Your task to perform on an android device: allow cookies in the chrome app Image 0: 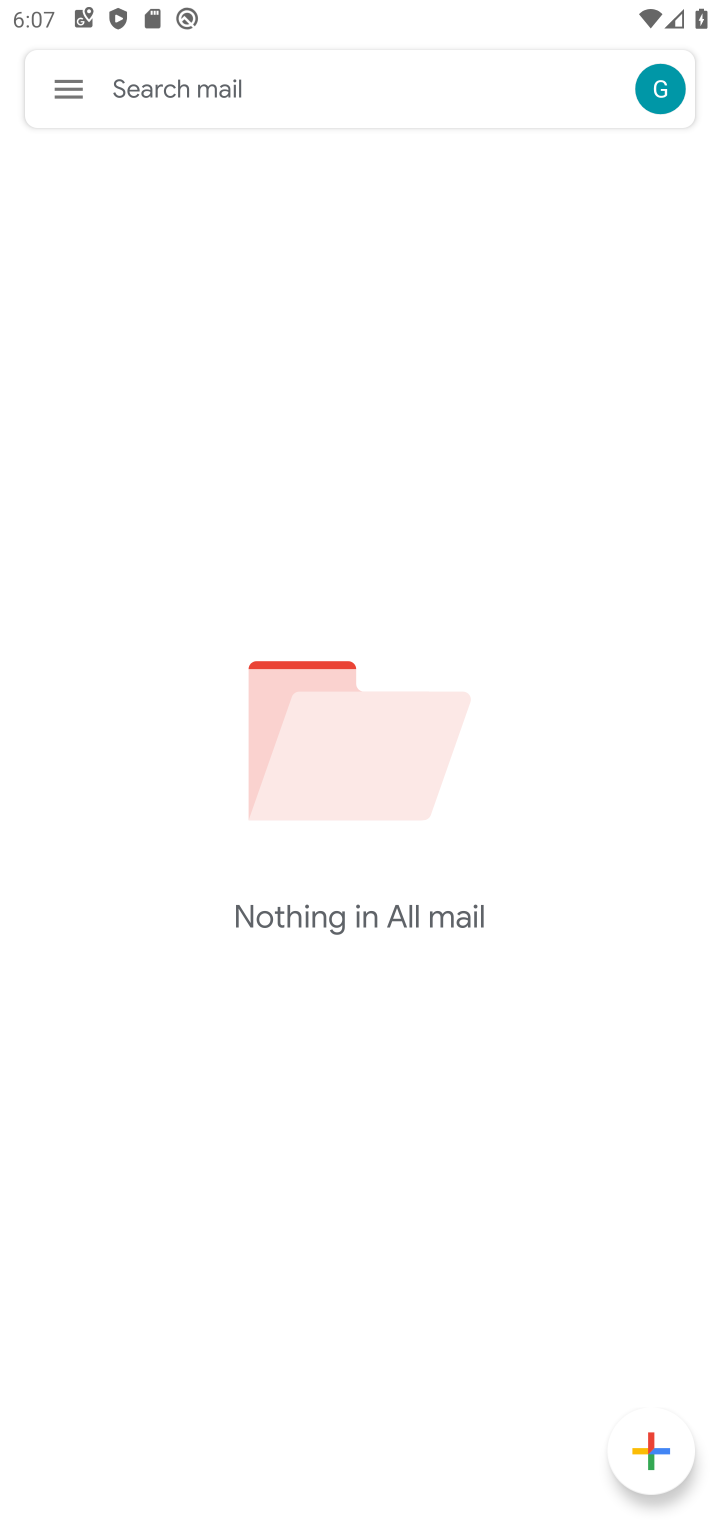
Step 0: press back button
Your task to perform on an android device: allow cookies in the chrome app Image 1: 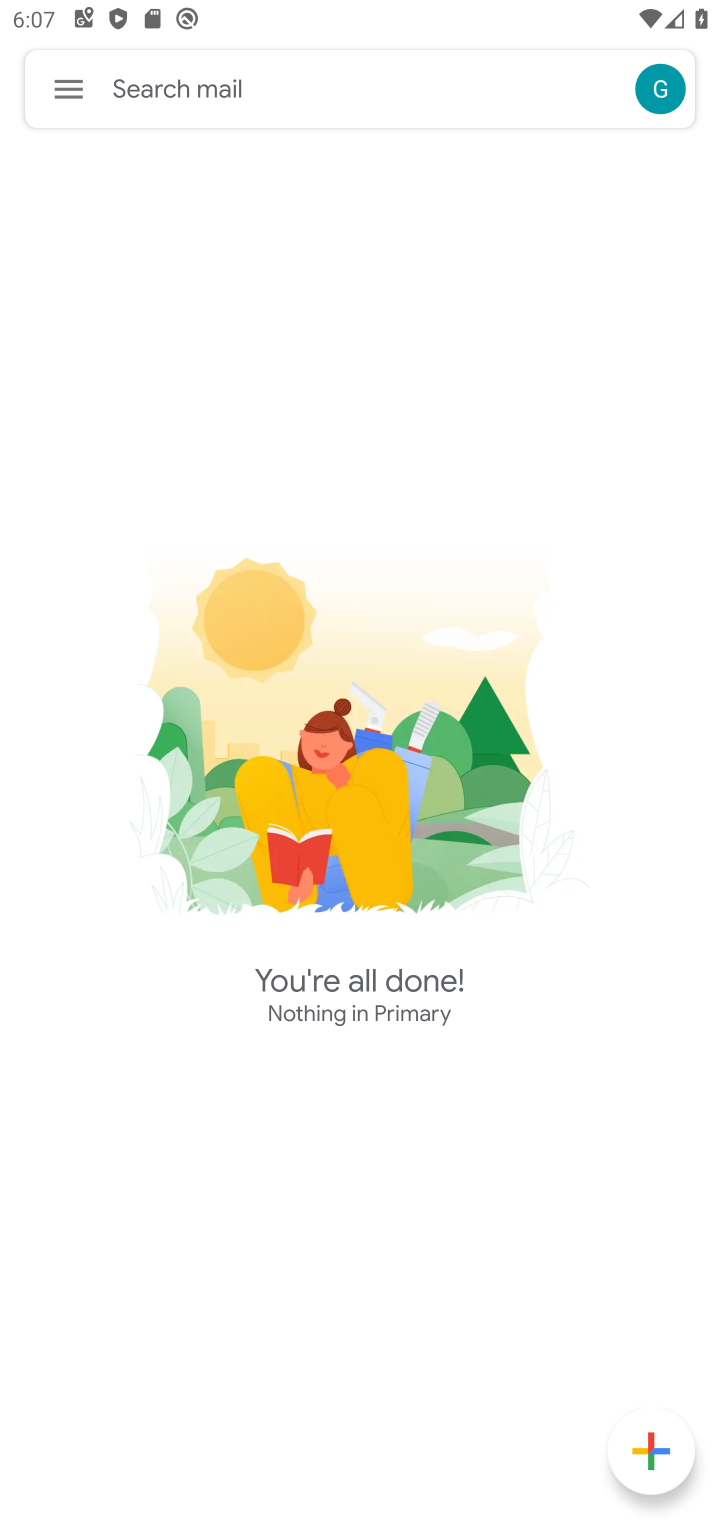
Step 1: press home button
Your task to perform on an android device: allow cookies in the chrome app Image 2: 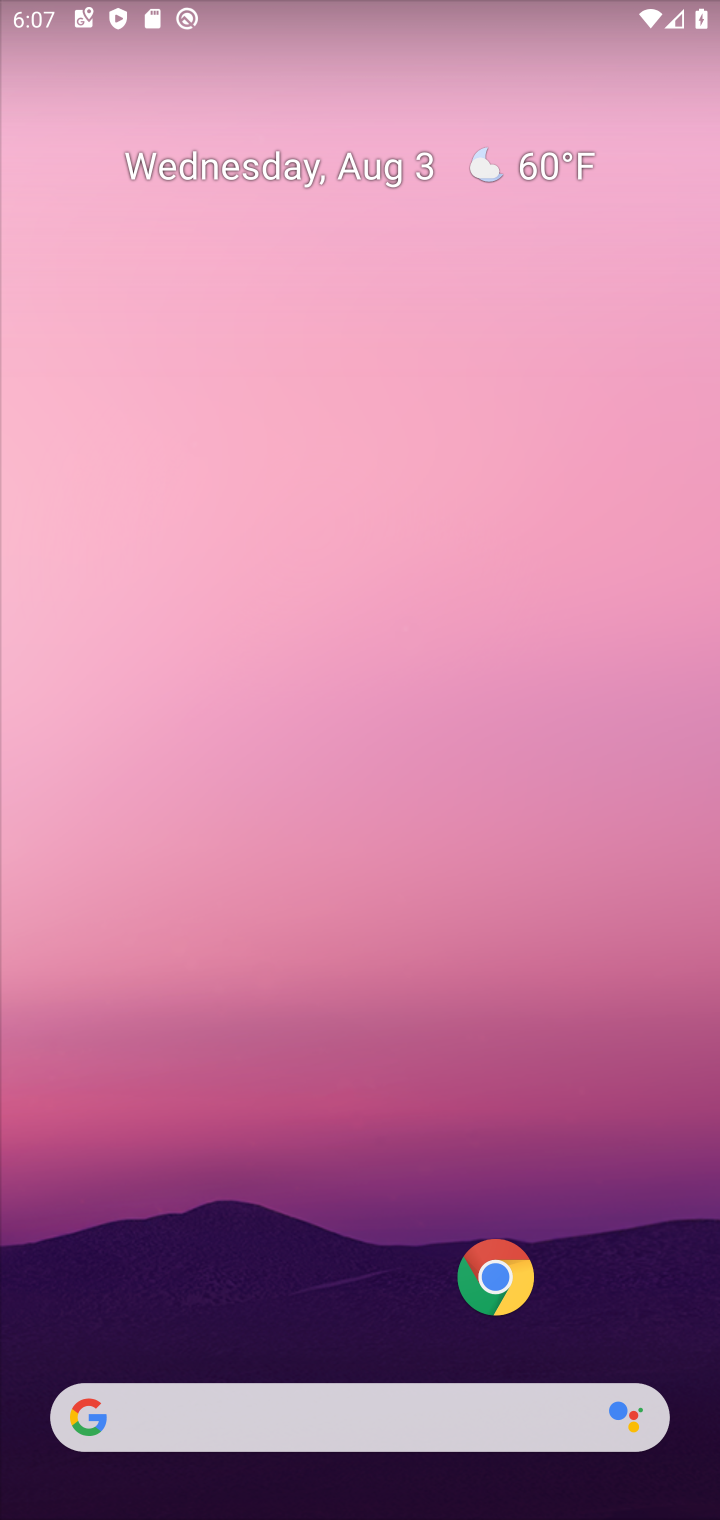
Step 2: click (468, 1288)
Your task to perform on an android device: allow cookies in the chrome app Image 3: 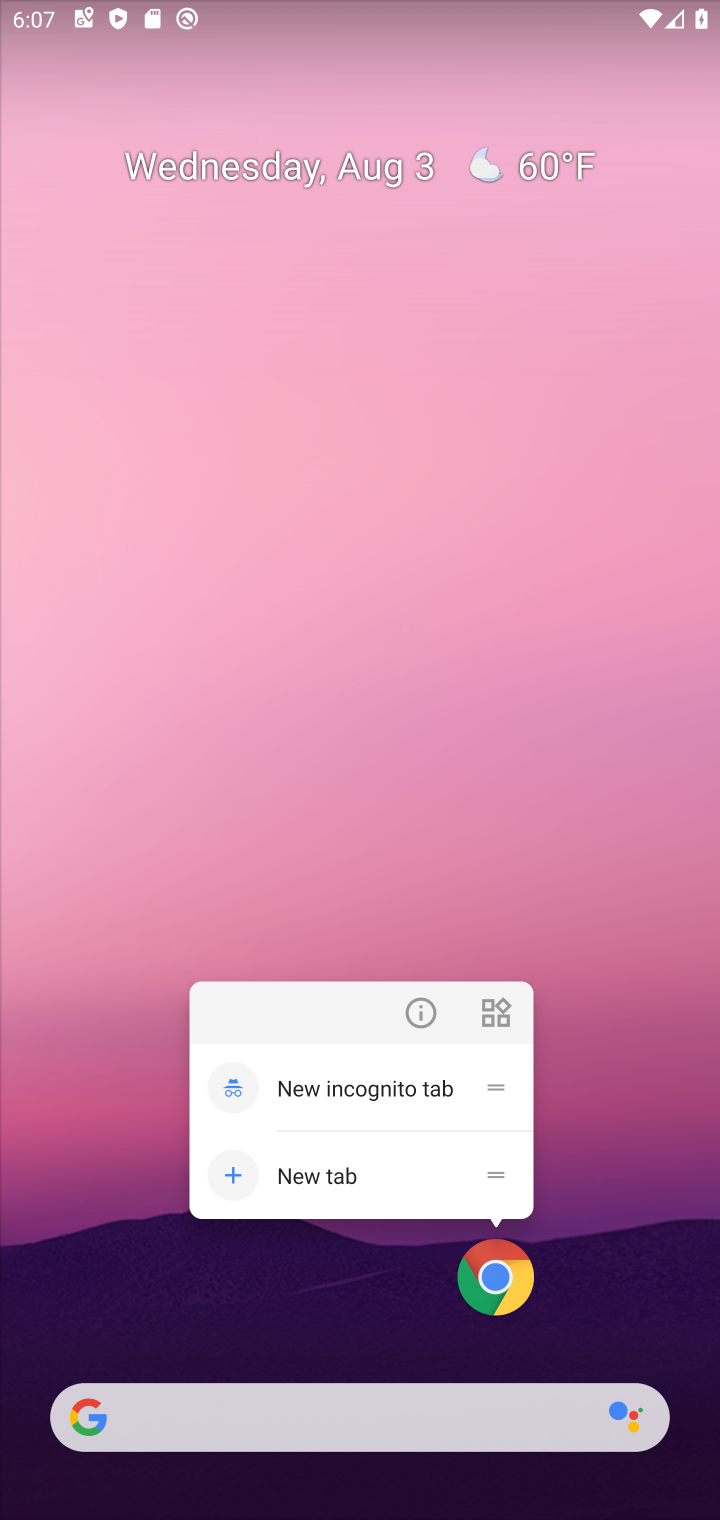
Step 3: click (518, 1280)
Your task to perform on an android device: allow cookies in the chrome app Image 4: 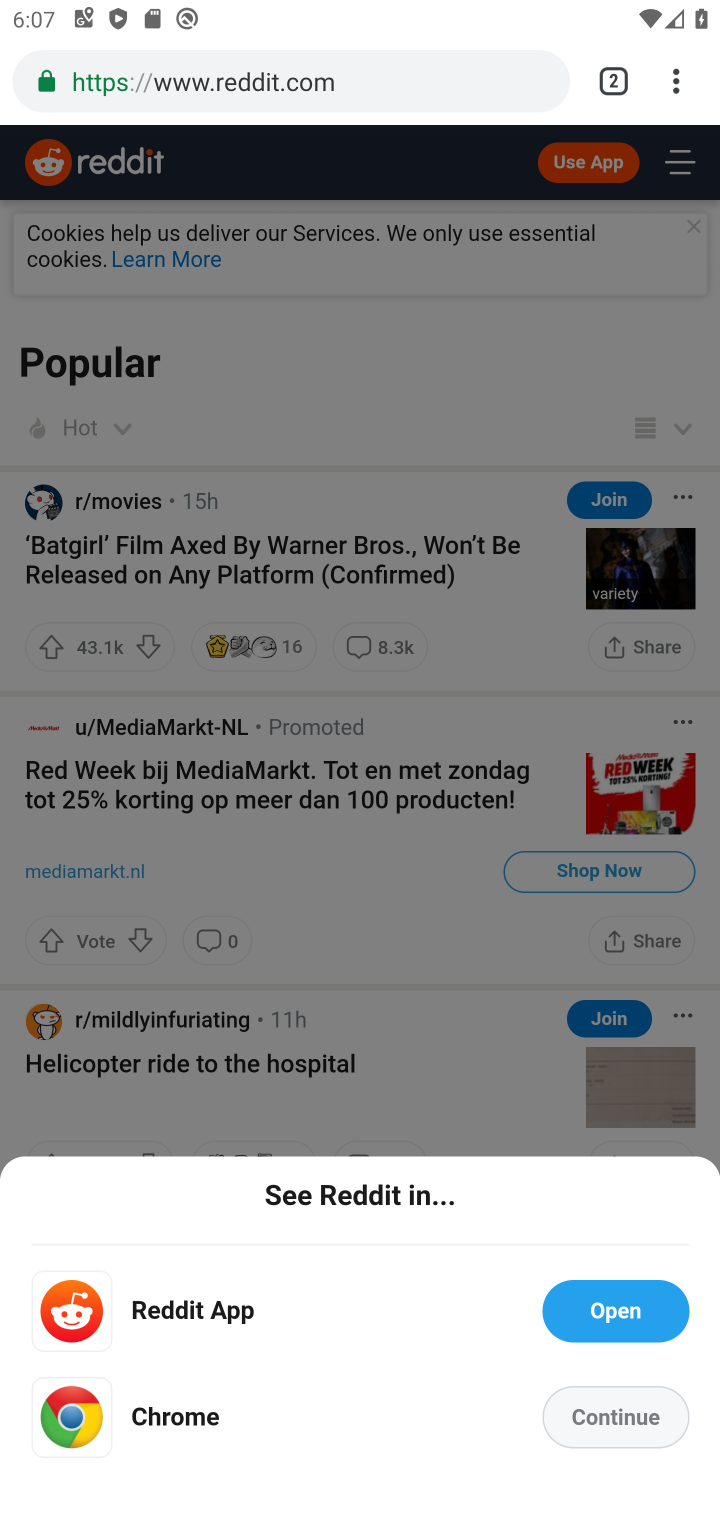
Step 4: drag from (690, 70) to (417, 1077)
Your task to perform on an android device: allow cookies in the chrome app Image 5: 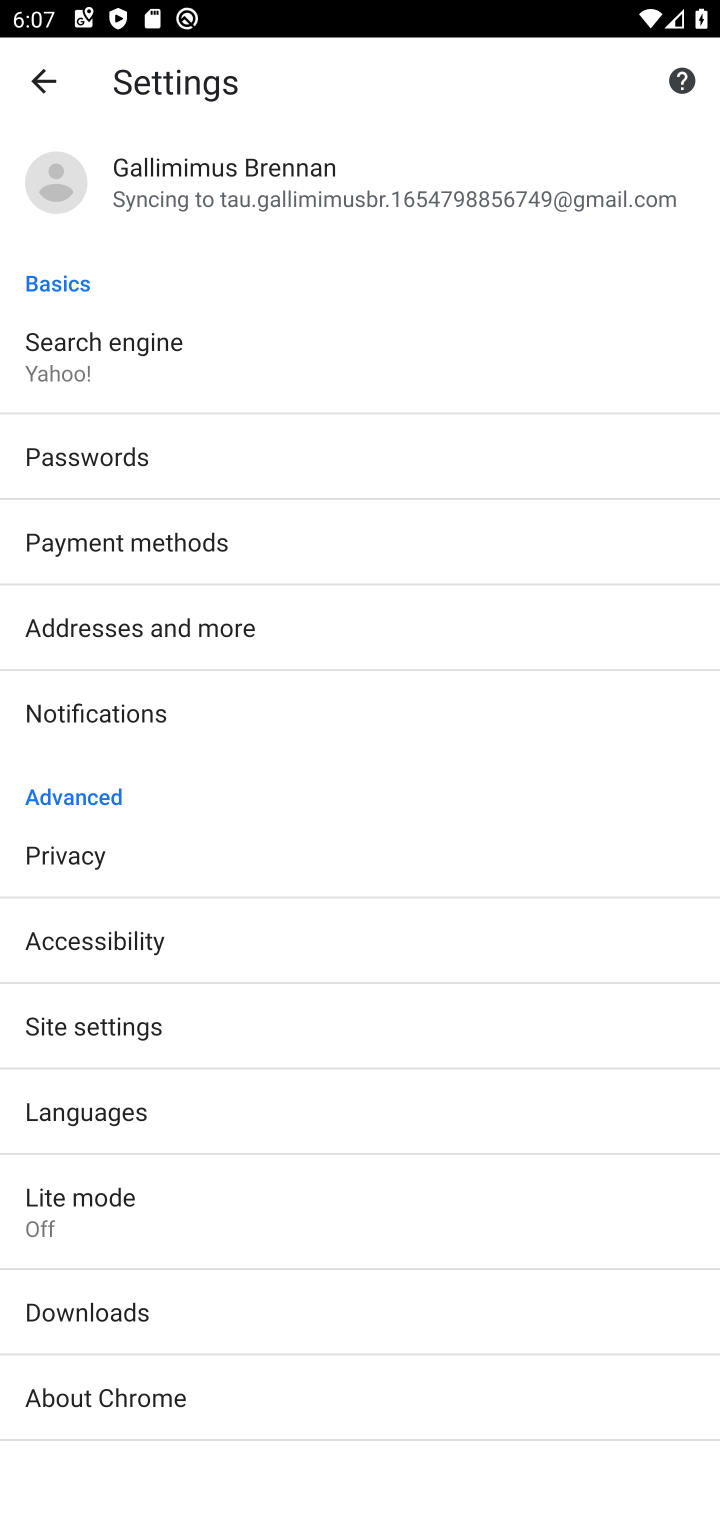
Step 5: click (114, 1031)
Your task to perform on an android device: allow cookies in the chrome app Image 6: 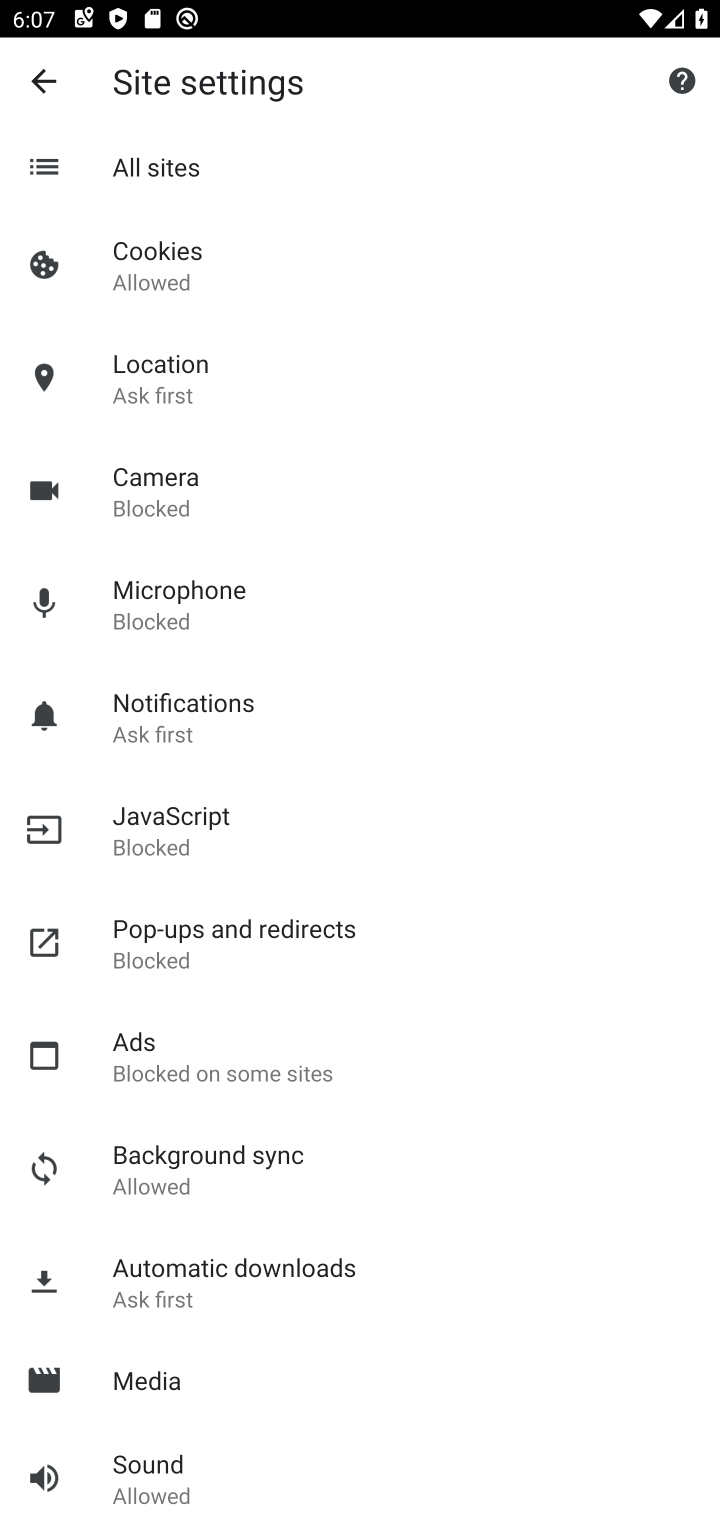
Step 6: click (160, 248)
Your task to perform on an android device: allow cookies in the chrome app Image 7: 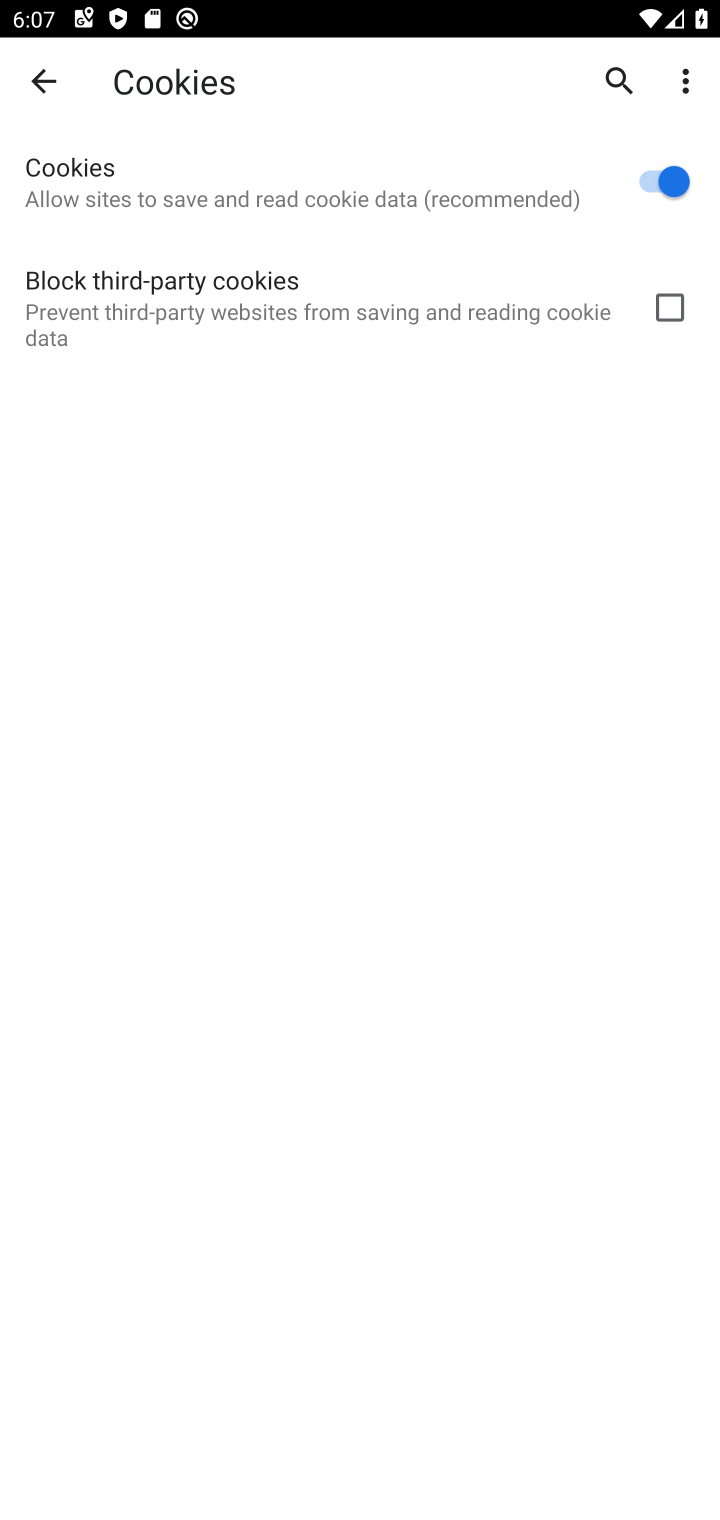
Step 7: task complete